Your task to perform on an android device: Go to wifi settings Image 0: 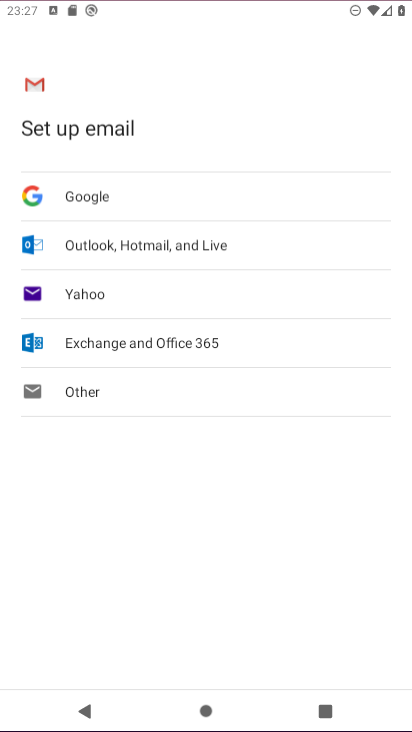
Step 0: drag from (381, 592) to (368, 203)
Your task to perform on an android device: Go to wifi settings Image 1: 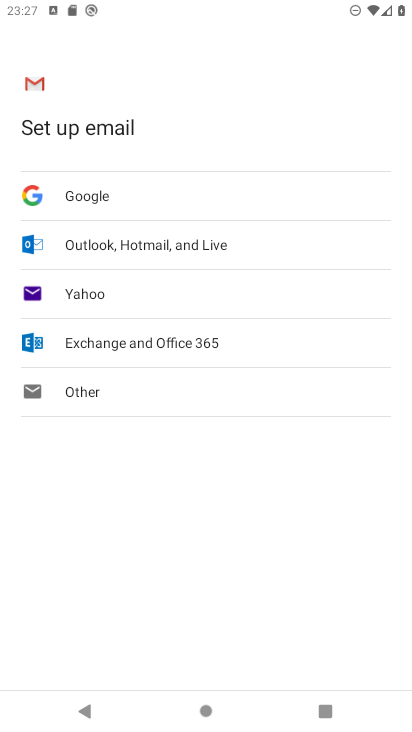
Step 1: press home button
Your task to perform on an android device: Go to wifi settings Image 2: 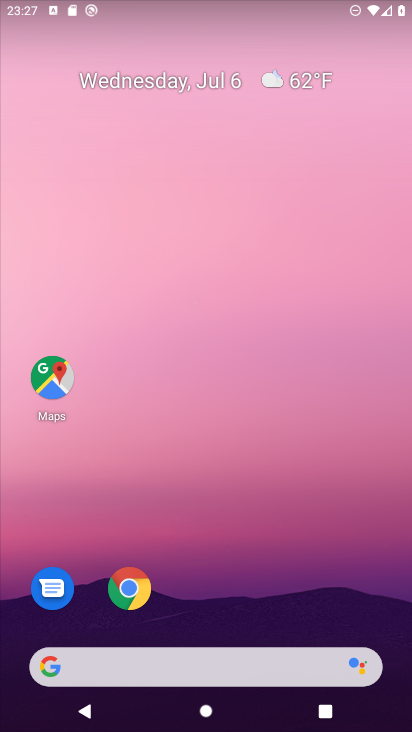
Step 2: drag from (367, 615) to (318, 133)
Your task to perform on an android device: Go to wifi settings Image 3: 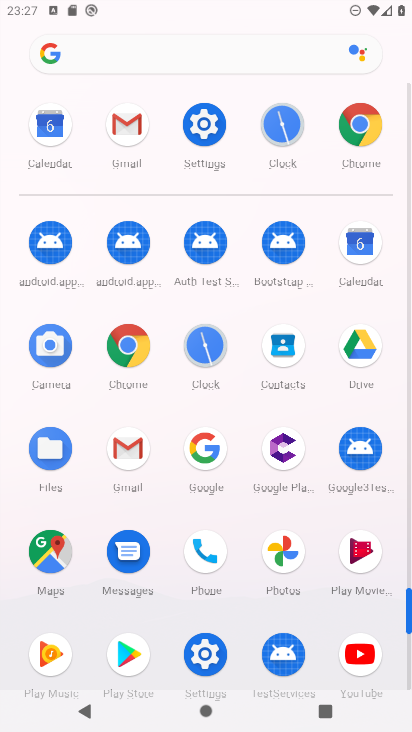
Step 3: click (206, 657)
Your task to perform on an android device: Go to wifi settings Image 4: 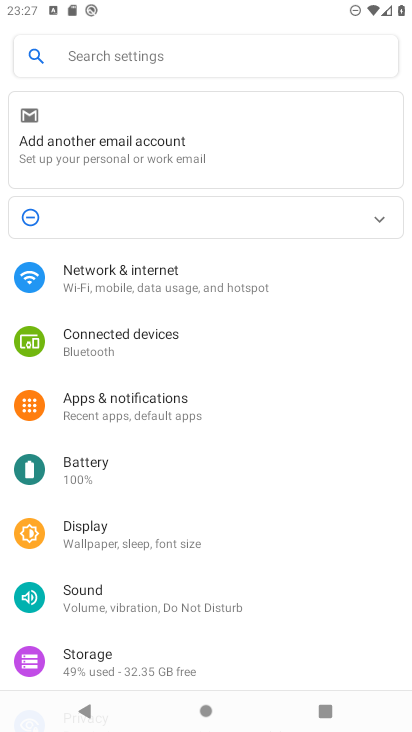
Step 4: click (123, 274)
Your task to perform on an android device: Go to wifi settings Image 5: 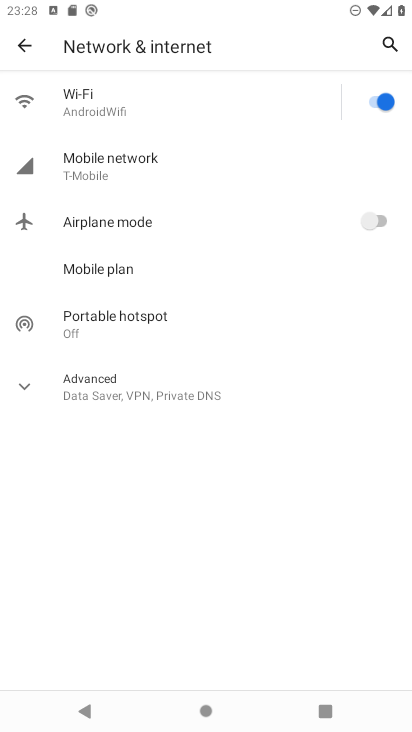
Step 5: click (47, 96)
Your task to perform on an android device: Go to wifi settings Image 6: 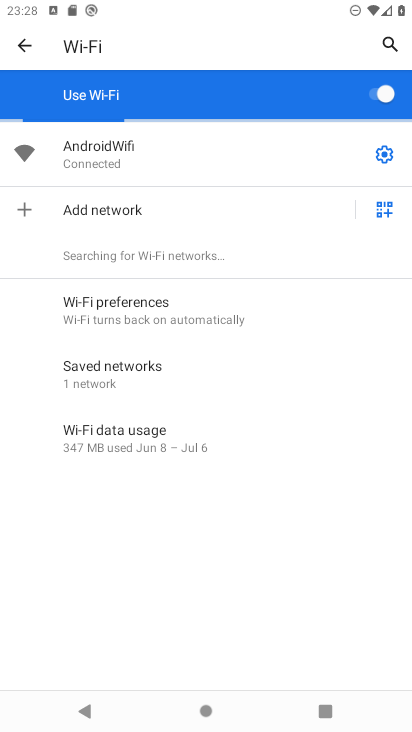
Step 6: click (382, 154)
Your task to perform on an android device: Go to wifi settings Image 7: 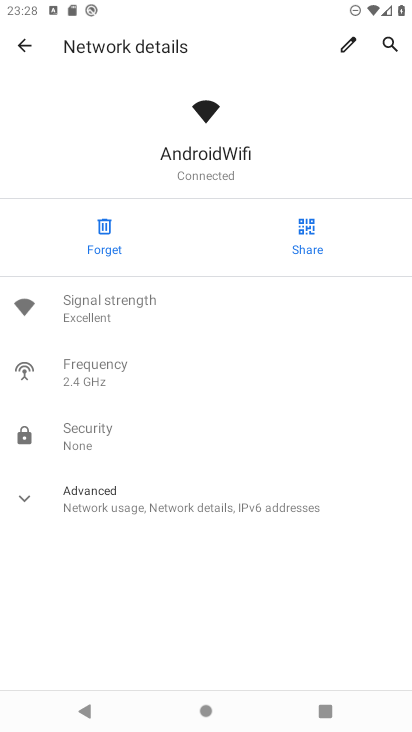
Step 7: click (20, 498)
Your task to perform on an android device: Go to wifi settings Image 8: 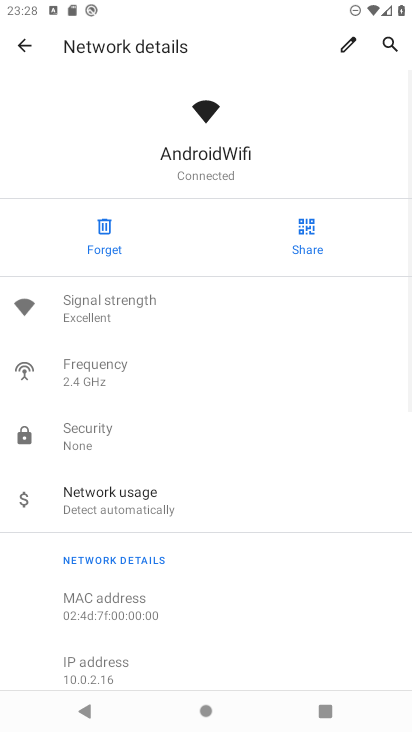
Step 8: task complete